Your task to perform on an android device: Open battery settings Image 0: 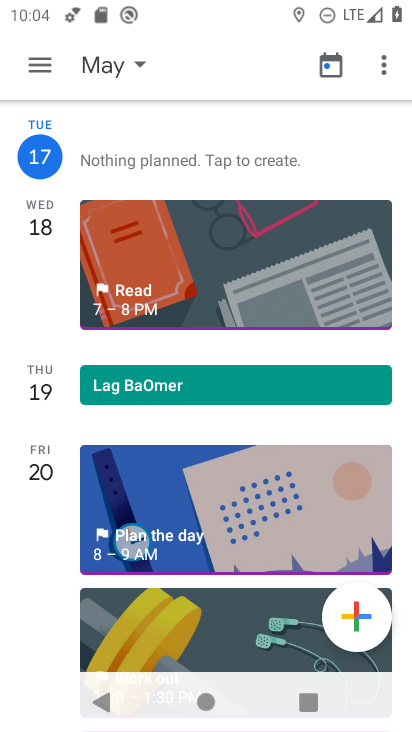
Step 0: press home button
Your task to perform on an android device: Open battery settings Image 1: 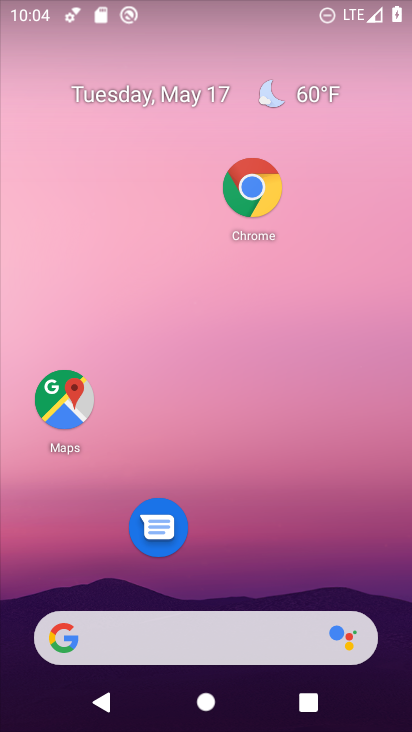
Step 1: drag from (244, 533) to (244, 81)
Your task to perform on an android device: Open battery settings Image 2: 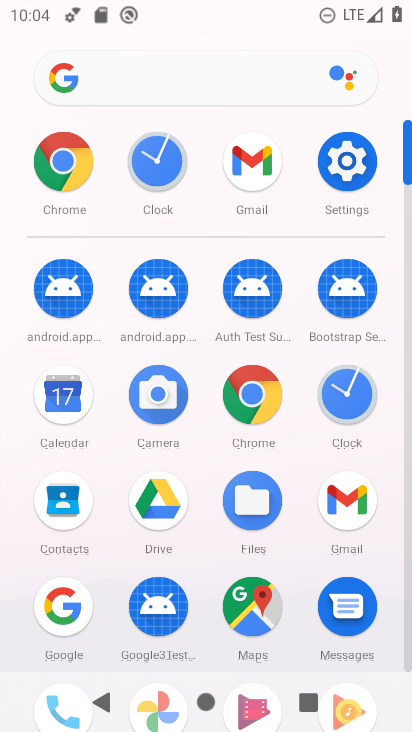
Step 2: click (341, 178)
Your task to perform on an android device: Open battery settings Image 3: 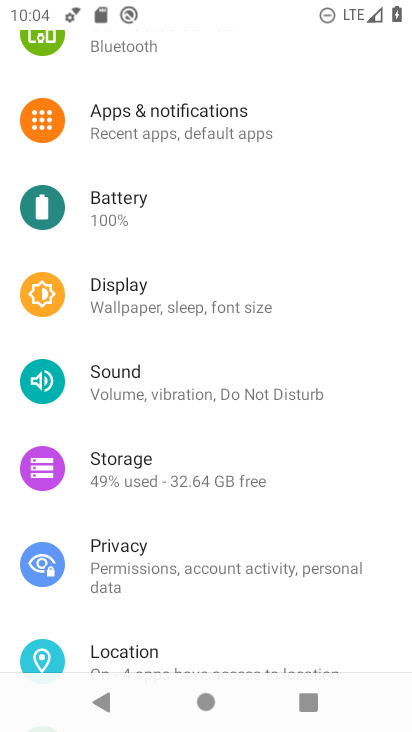
Step 3: click (172, 200)
Your task to perform on an android device: Open battery settings Image 4: 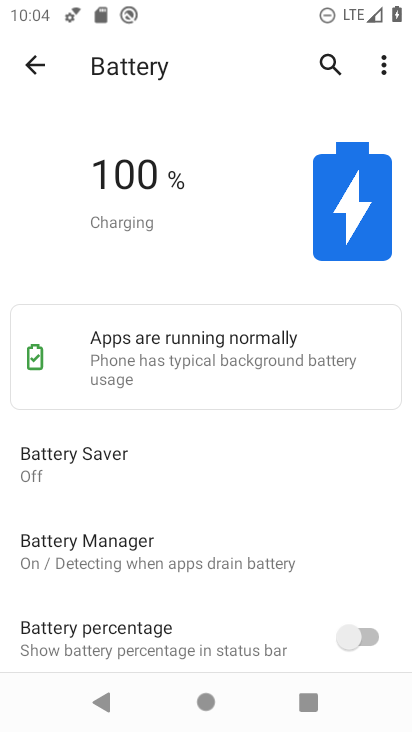
Step 4: task complete